Your task to perform on an android device: Do I have any events this weekend? Image 0: 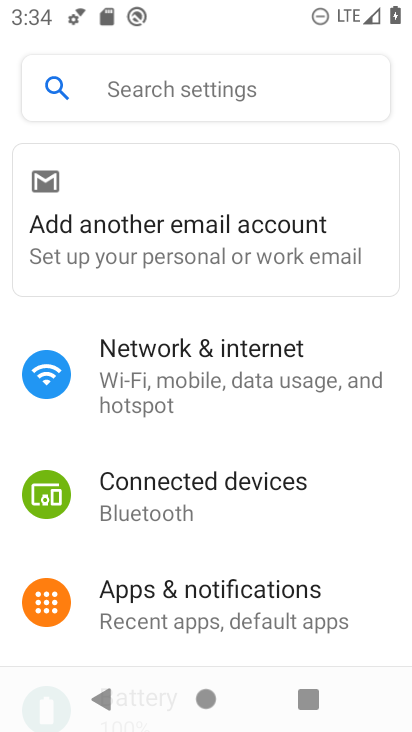
Step 0: press home button
Your task to perform on an android device: Do I have any events this weekend? Image 1: 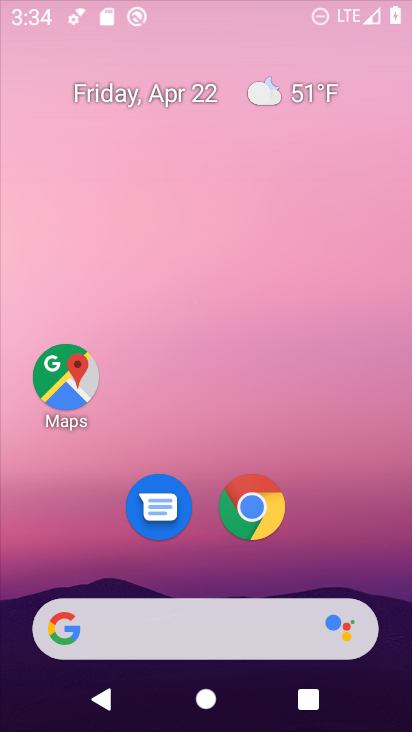
Step 1: drag from (193, 579) to (217, 13)
Your task to perform on an android device: Do I have any events this weekend? Image 2: 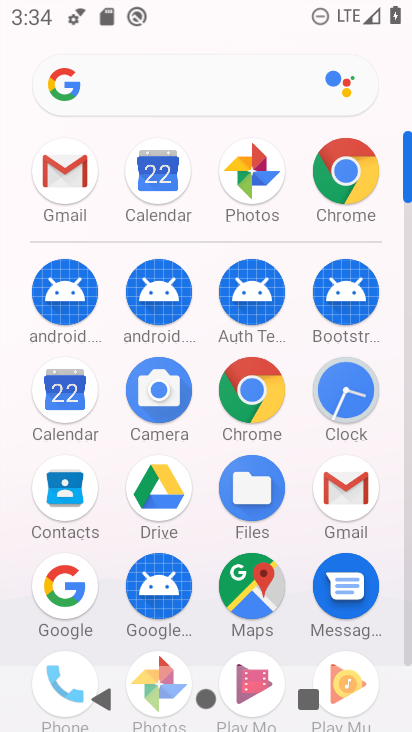
Step 2: click (51, 407)
Your task to perform on an android device: Do I have any events this weekend? Image 3: 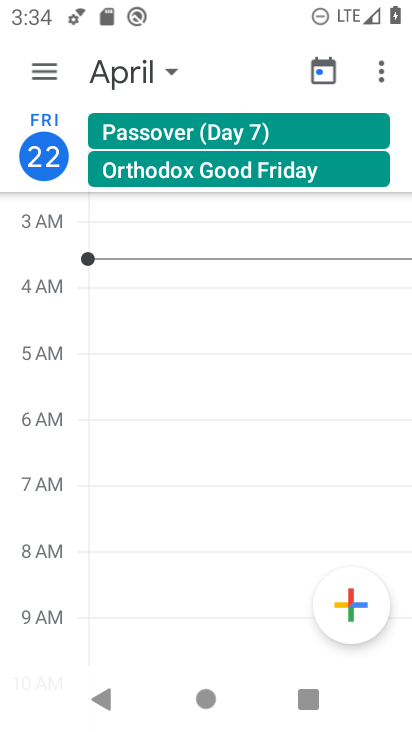
Step 3: click (46, 72)
Your task to perform on an android device: Do I have any events this weekend? Image 4: 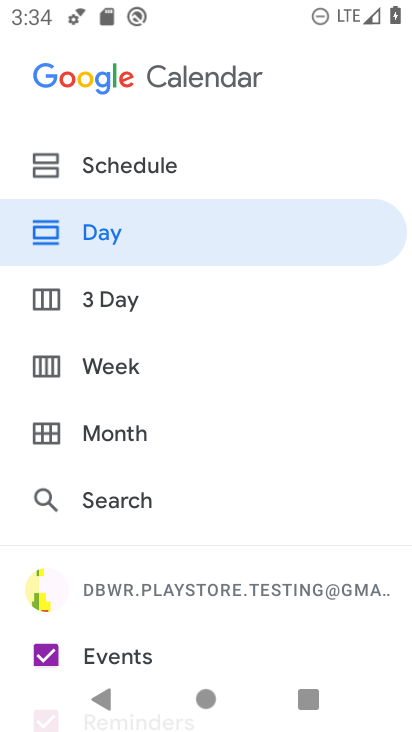
Step 4: click (106, 372)
Your task to perform on an android device: Do I have any events this weekend? Image 5: 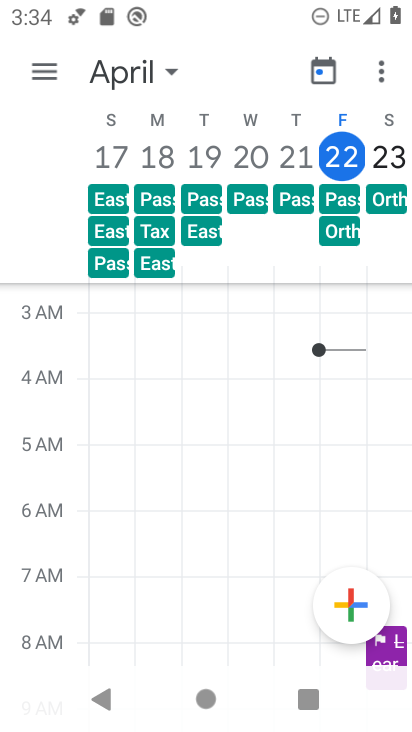
Step 5: click (310, 155)
Your task to perform on an android device: Do I have any events this weekend? Image 6: 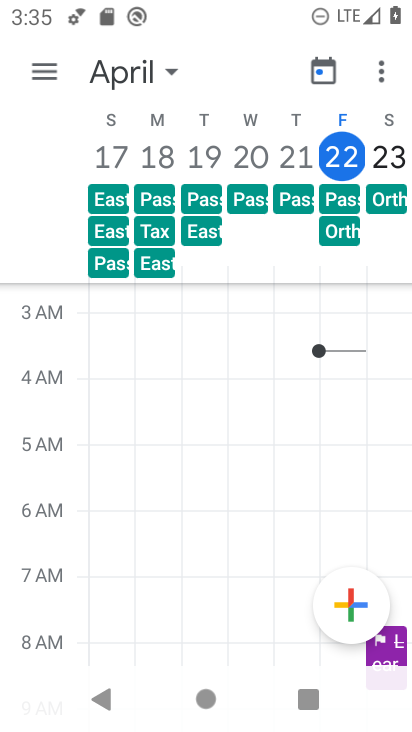
Step 6: task complete